Your task to perform on an android device: turn on notifications settings in the gmail app Image 0: 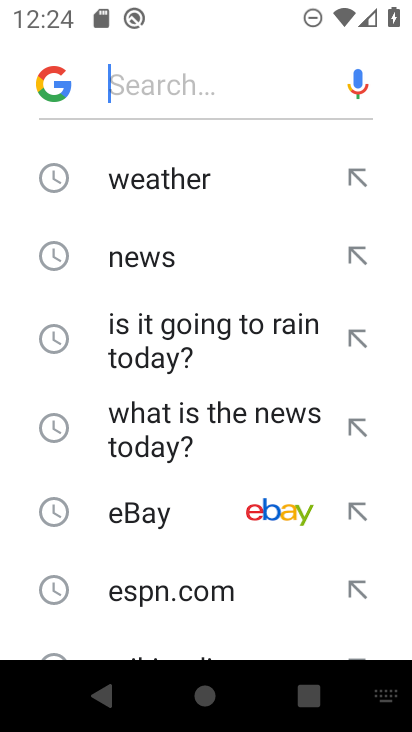
Step 0: press back button
Your task to perform on an android device: turn on notifications settings in the gmail app Image 1: 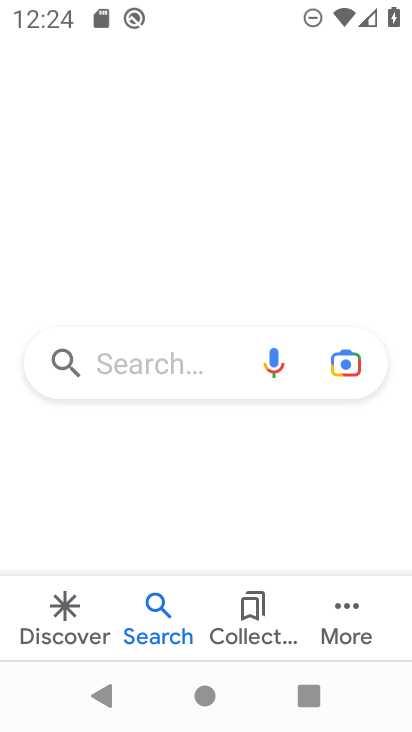
Step 1: press back button
Your task to perform on an android device: turn on notifications settings in the gmail app Image 2: 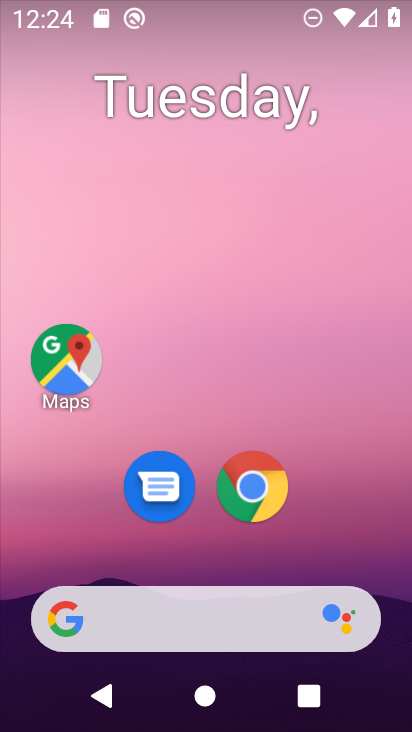
Step 2: drag from (186, 552) to (157, 132)
Your task to perform on an android device: turn on notifications settings in the gmail app Image 3: 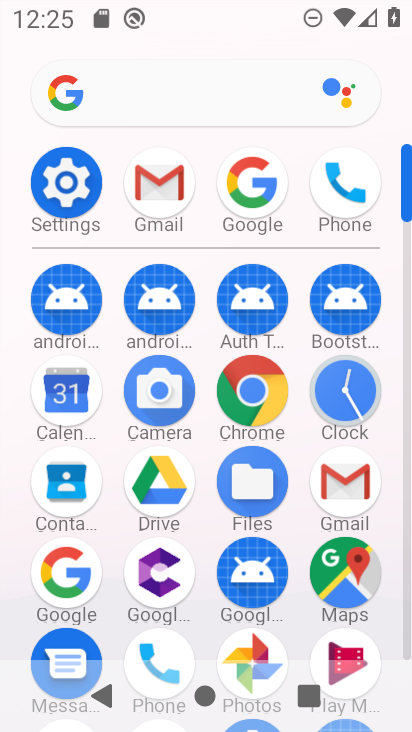
Step 3: click (353, 481)
Your task to perform on an android device: turn on notifications settings in the gmail app Image 4: 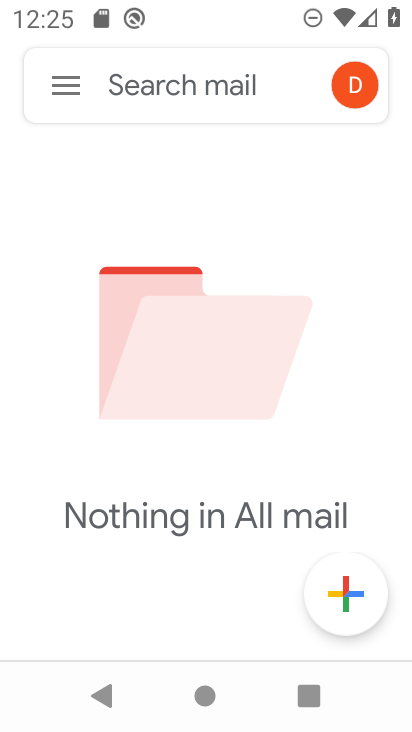
Step 4: click (69, 88)
Your task to perform on an android device: turn on notifications settings in the gmail app Image 5: 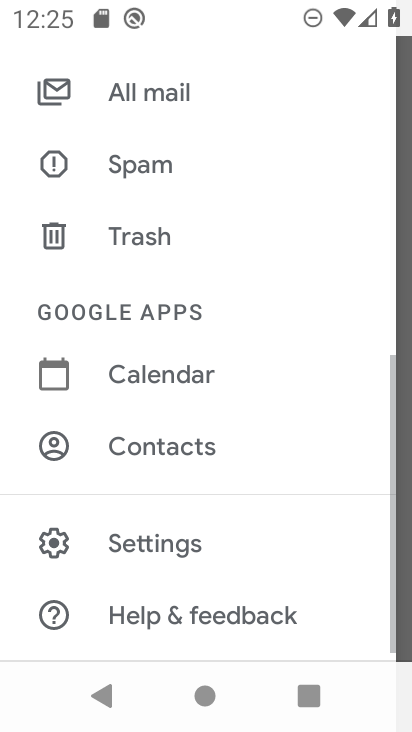
Step 5: click (128, 541)
Your task to perform on an android device: turn on notifications settings in the gmail app Image 6: 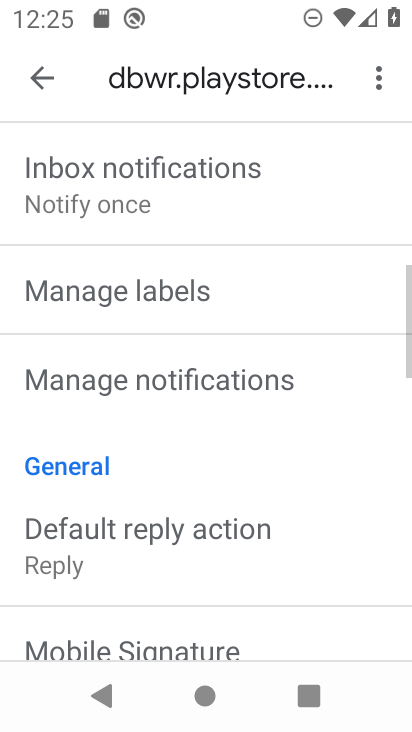
Step 6: click (186, 381)
Your task to perform on an android device: turn on notifications settings in the gmail app Image 7: 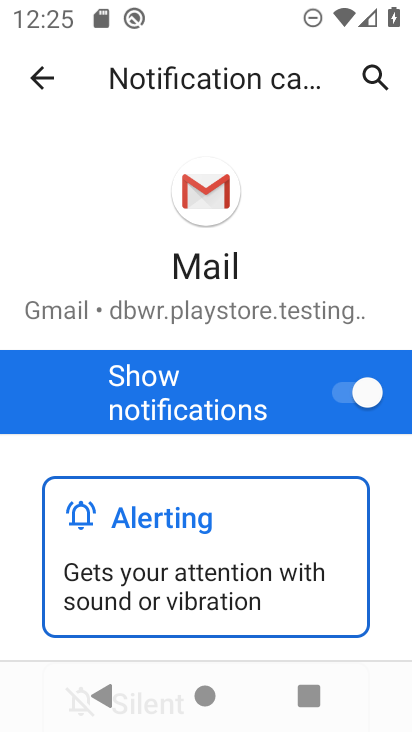
Step 7: task complete